Your task to perform on an android device: Search for Italian restaurants on Maps Image 0: 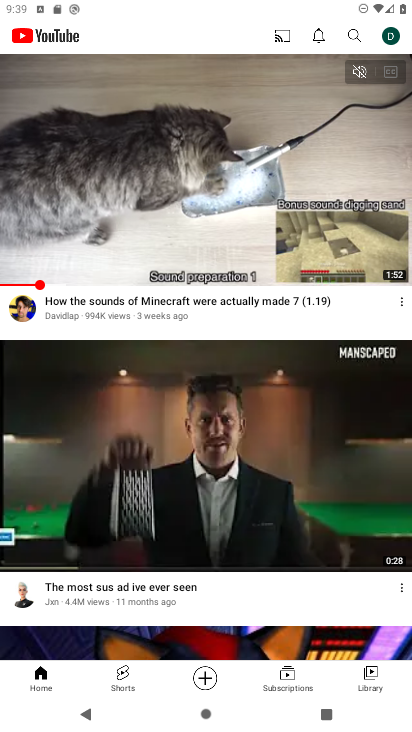
Step 0: press home button
Your task to perform on an android device: Search for Italian restaurants on Maps Image 1: 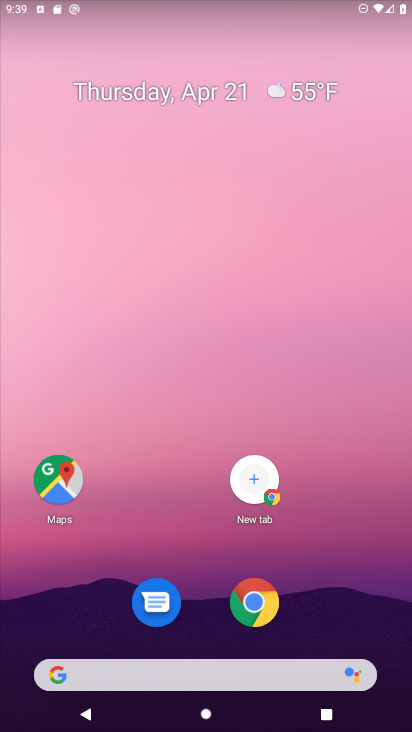
Step 1: click (65, 489)
Your task to perform on an android device: Search for Italian restaurants on Maps Image 2: 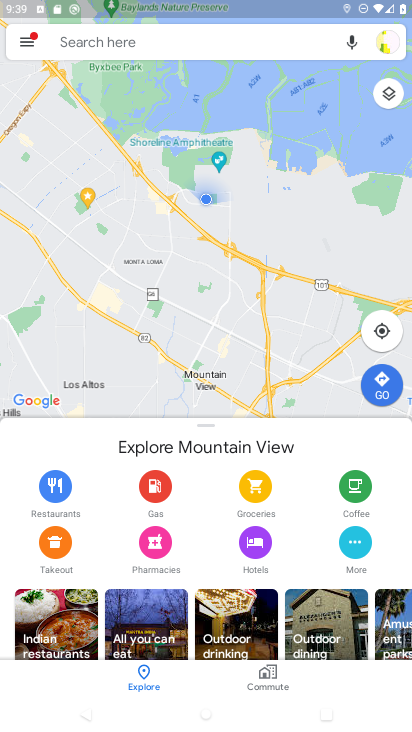
Step 2: click (155, 50)
Your task to perform on an android device: Search for Italian restaurants on Maps Image 3: 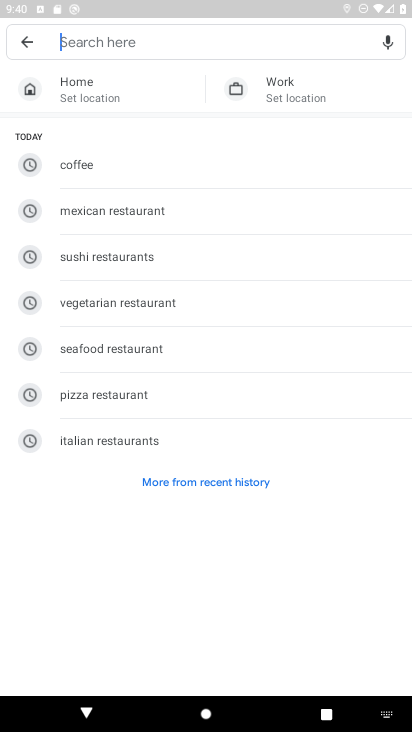
Step 3: click (211, 437)
Your task to perform on an android device: Search for Italian restaurants on Maps Image 4: 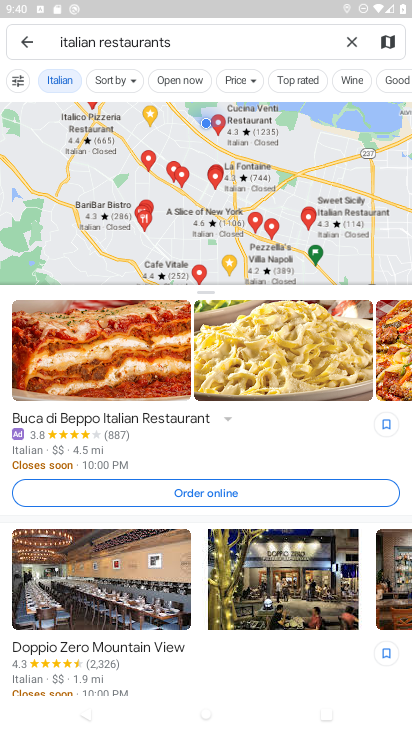
Step 4: task complete